Your task to perform on an android device: Go to privacy settings Image 0: 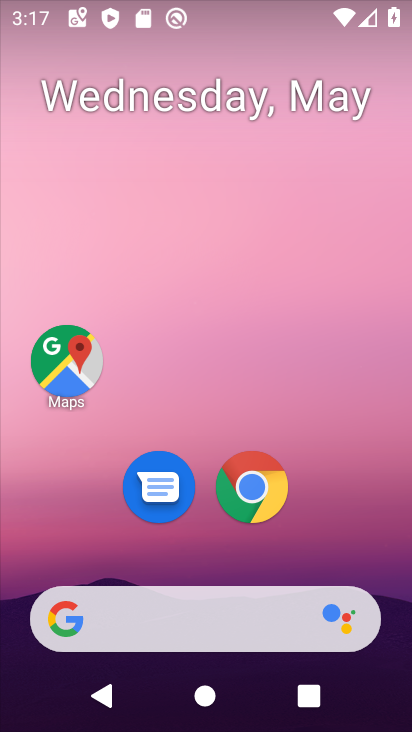
Step 0: drag from (356, 536) to (229, 44)
Your task to perform on an android device: Go to privacy settings Image 1: 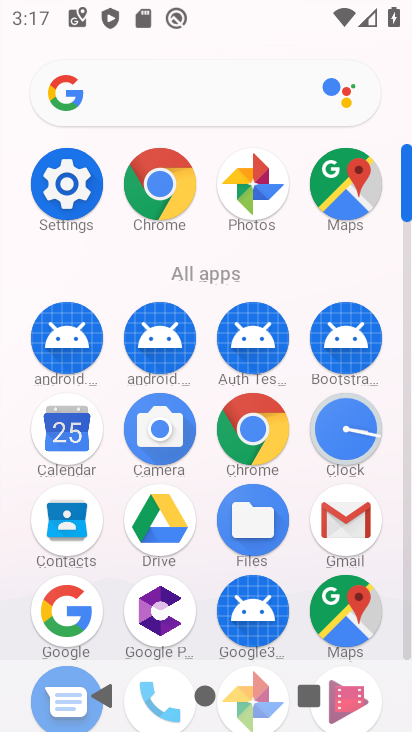
Step 1: drag from (2, 548) to (15, 300)
Your task to perform on an android device: Go to privacy settings Image 2: 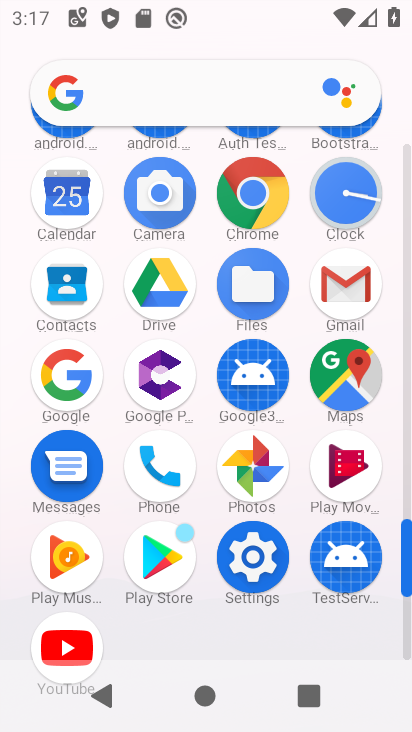
Step 2: click (255, 190)
Your task to perform on an android device: Go to privacy settings Image 3: 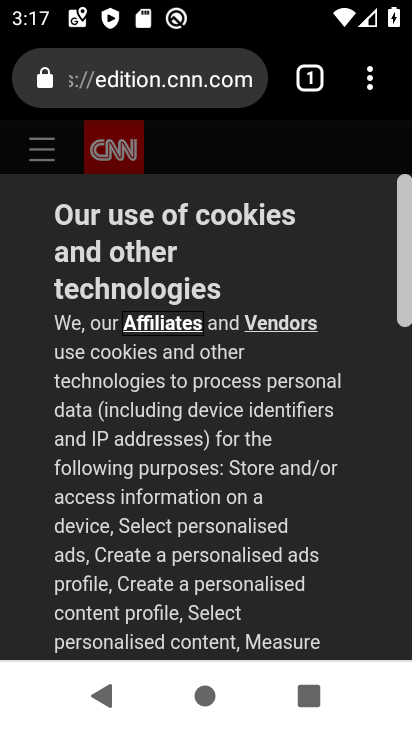
Step 3: drag from (367, 86) to (95, 545)
Your task to perform on an android device: Go to privacy settings Image 4: 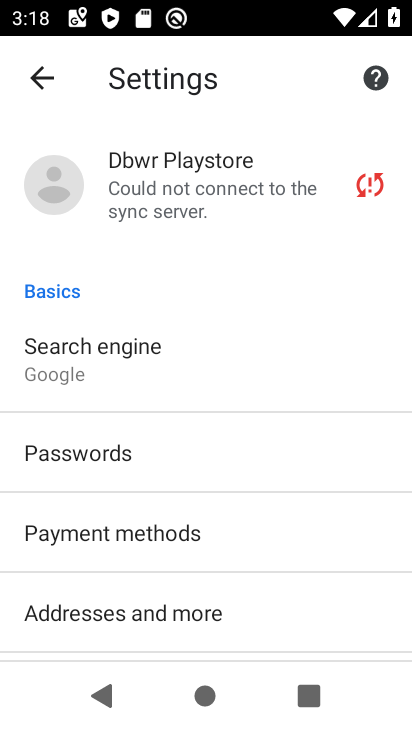
Step 4: drag from (276, 539) to (285, 128)
Your task to perform on an android device: Go to privacy settings Image 5: 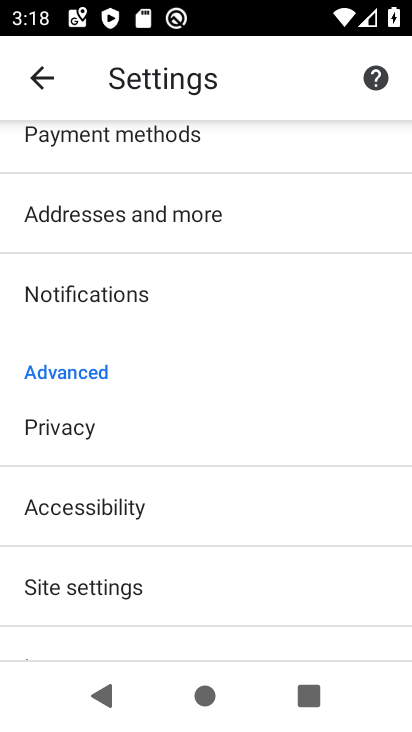
Step 5: click (86, 428)
Your task to perform on an android device: Go to privacy settings Image 6: 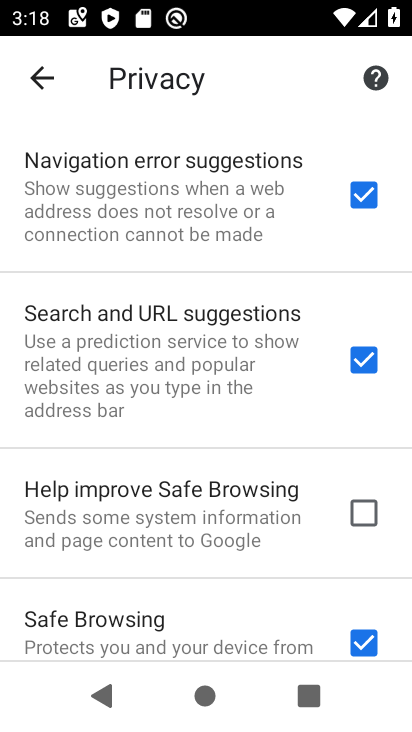
Step 6: task complete